Your task to perform on an android device: View the shopping cart on amazon.com. Search for "usb-c to usb-a" on amazon.com, select the first entry, add it to the cart, then select checkout. Image 0: 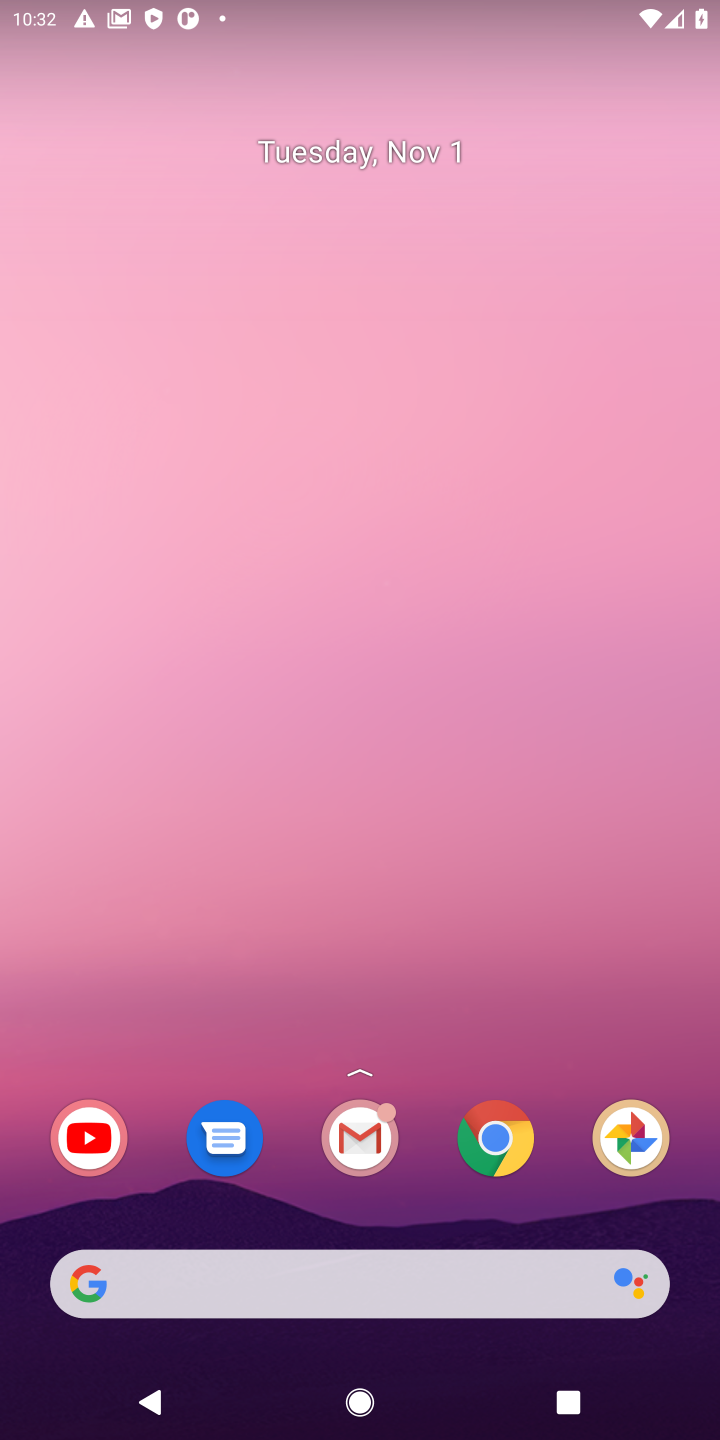
Step 0: click (450, 1154)
Your task to perform on an android device: View the shopping cart on amazon.com. Search for "usb-c to usb-a" on amazon.com, select the first entry, add it to the cart, then select checkout. Image 1: 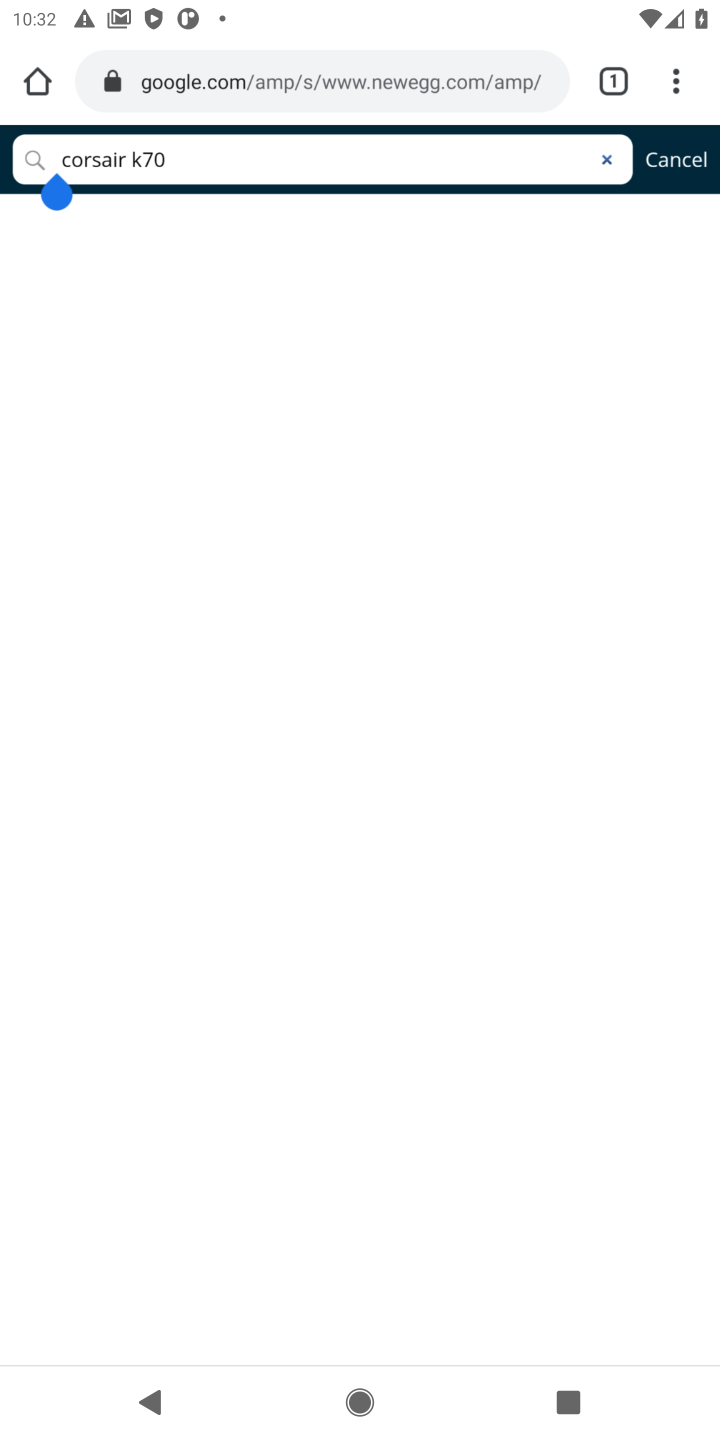
Step 1: click (482, 1147)
Your task to perform on an android device: View the shopping cart on amazon.com. Search for "usb-c to usb-a" on amazon.com, select the first entry, add it to the cart, then select checkout. Image 2: 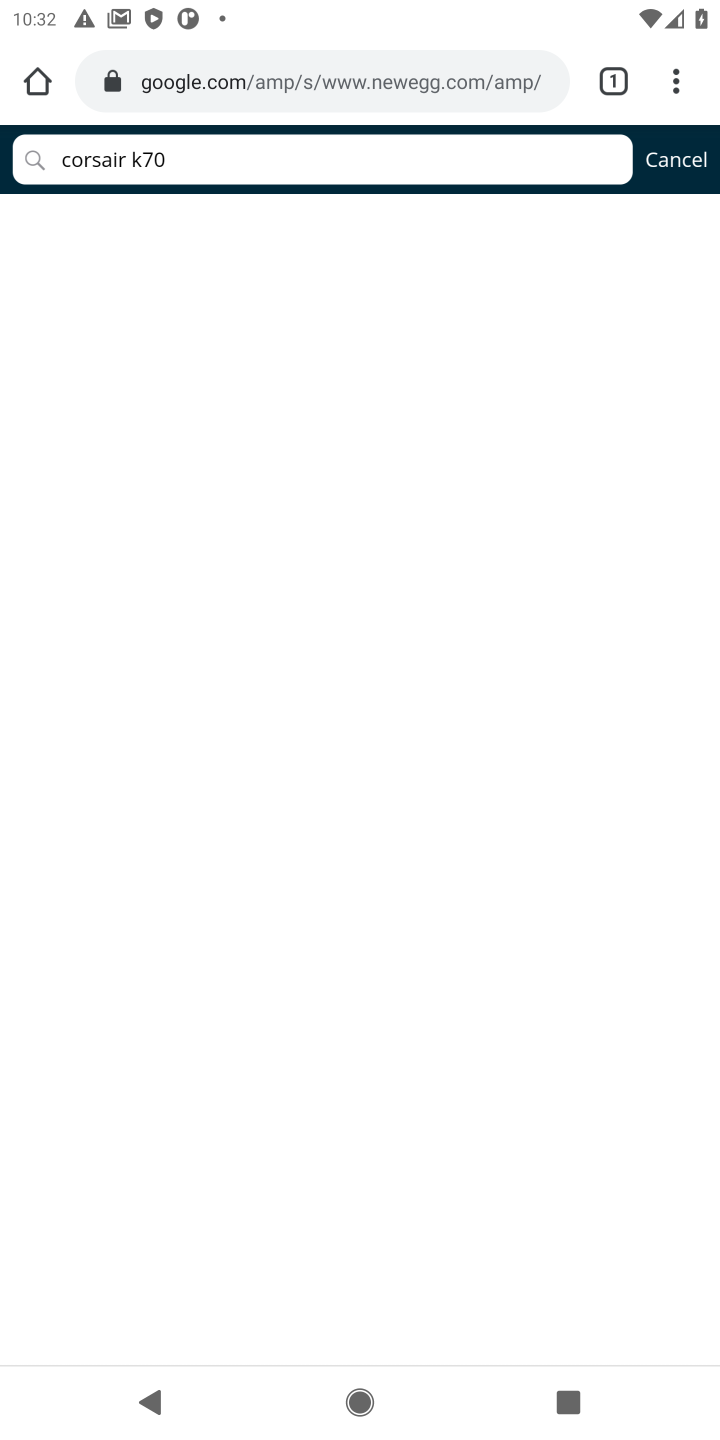
Step 2: click (261, 54)
Your task to perform on an android device: View the shopping cart on amazon.com. Search for "usb-c to usb-a" on amazon.com, select the first entry, add it to the cart, then select checkout. Image 3: 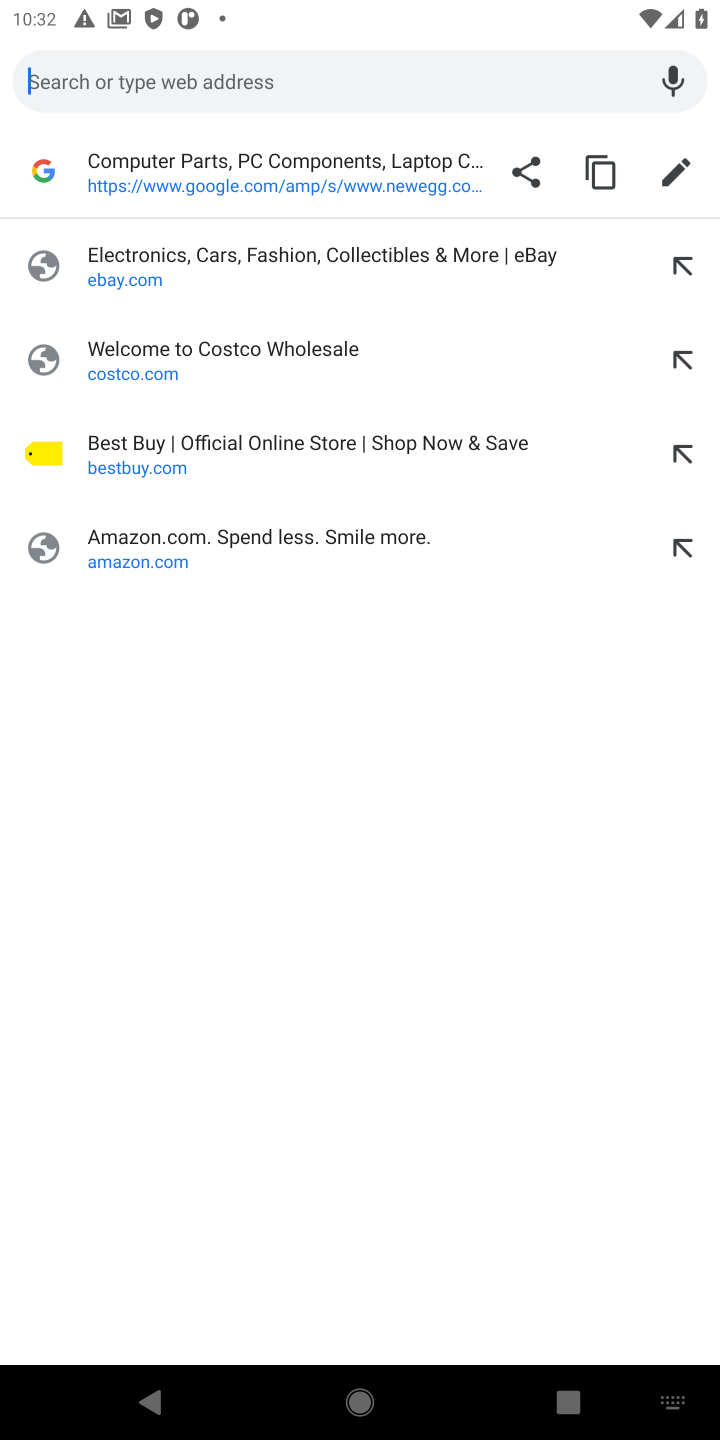
Step 3: type "amazon.com"
Your task to perform on an android device: View the shopping cart on amazon.com. Search for "usb-c to usb-a" on amazon.com, select the first entry, add it to the cart, then select checkout. Image 4: 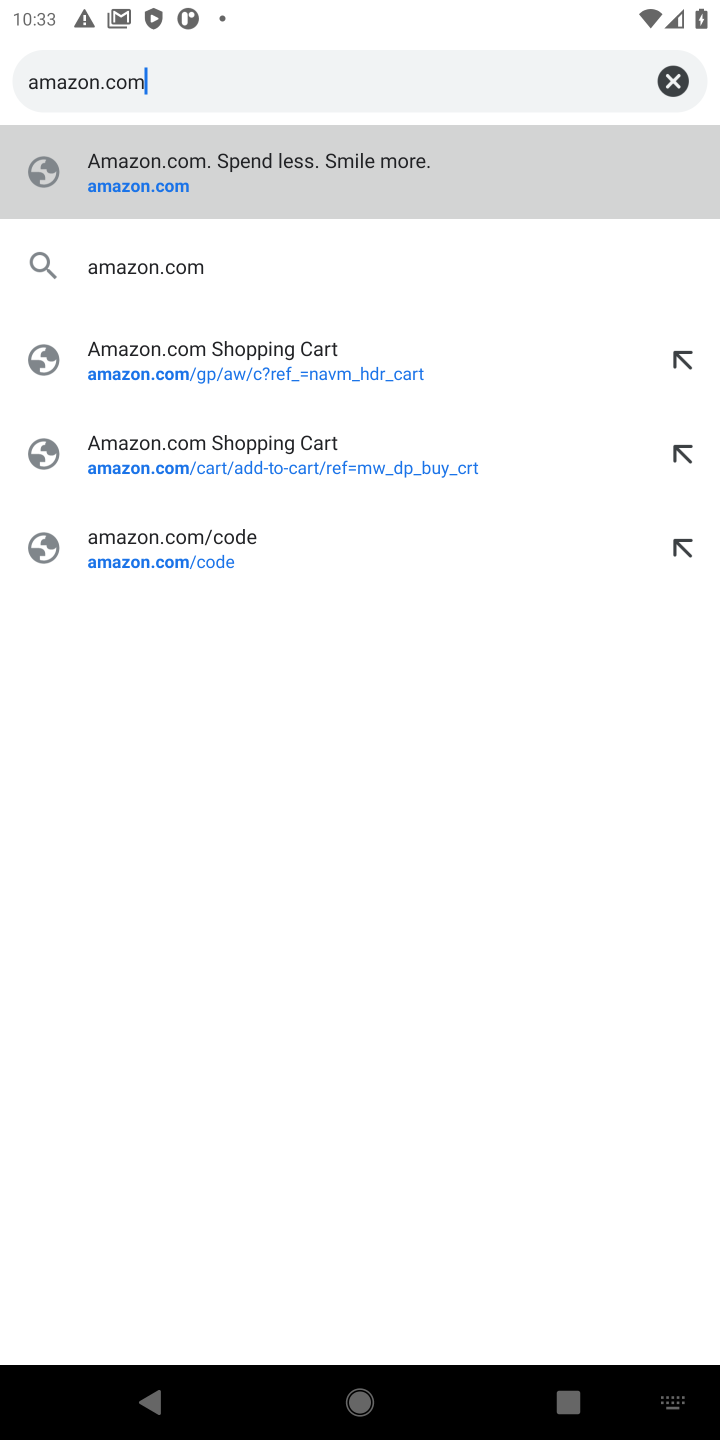
Step 4: click (139, 187)
Your task to perform on an android device: View the shopping cart on amazon.com. Search for "usb-c to usb-a" on amazon.com, select the first entry, add it to the cart, then select checkout. Image 5: 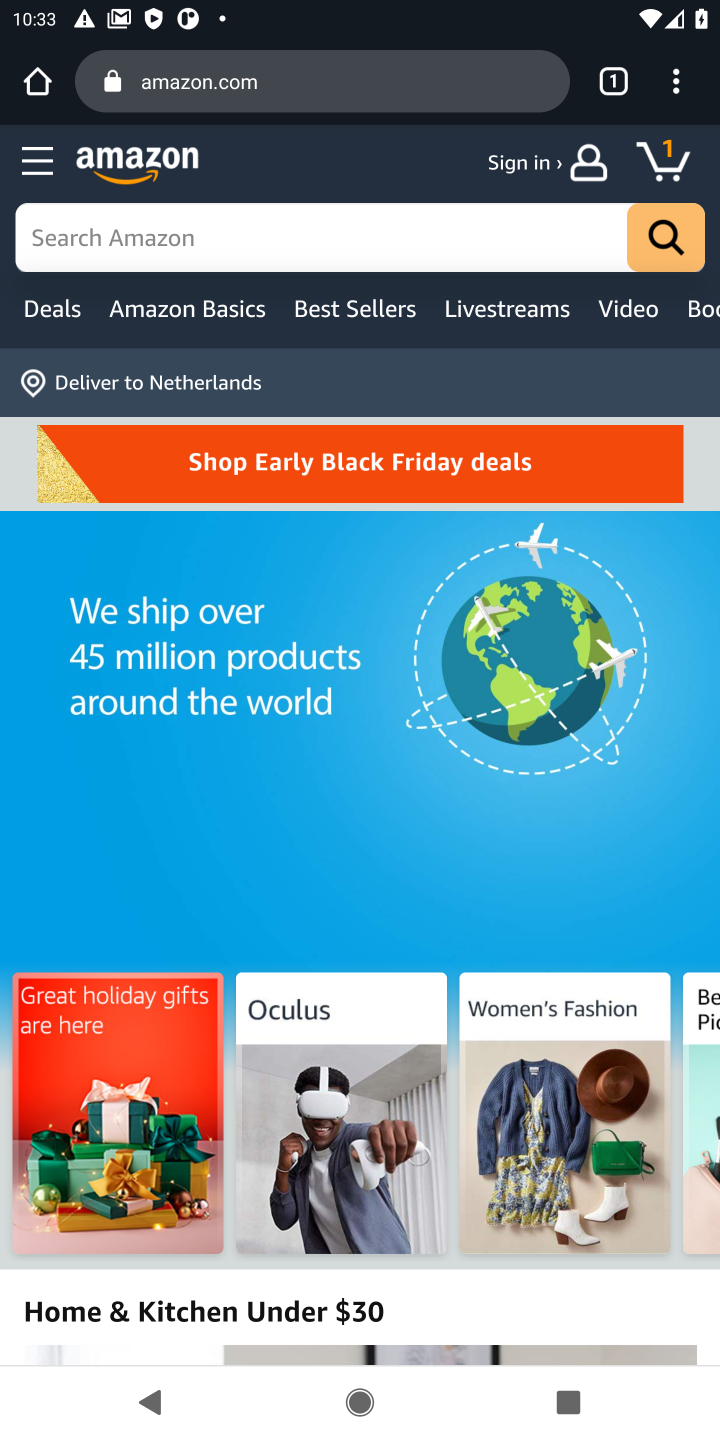
Step 5: click (654, 158)
Your task to perform on an android device: View the shopping cart on amazon.com. Search for "usb-c to usb-a" on amazon.com, select the first entry, add it to the cart, then select checkout. Image 6: 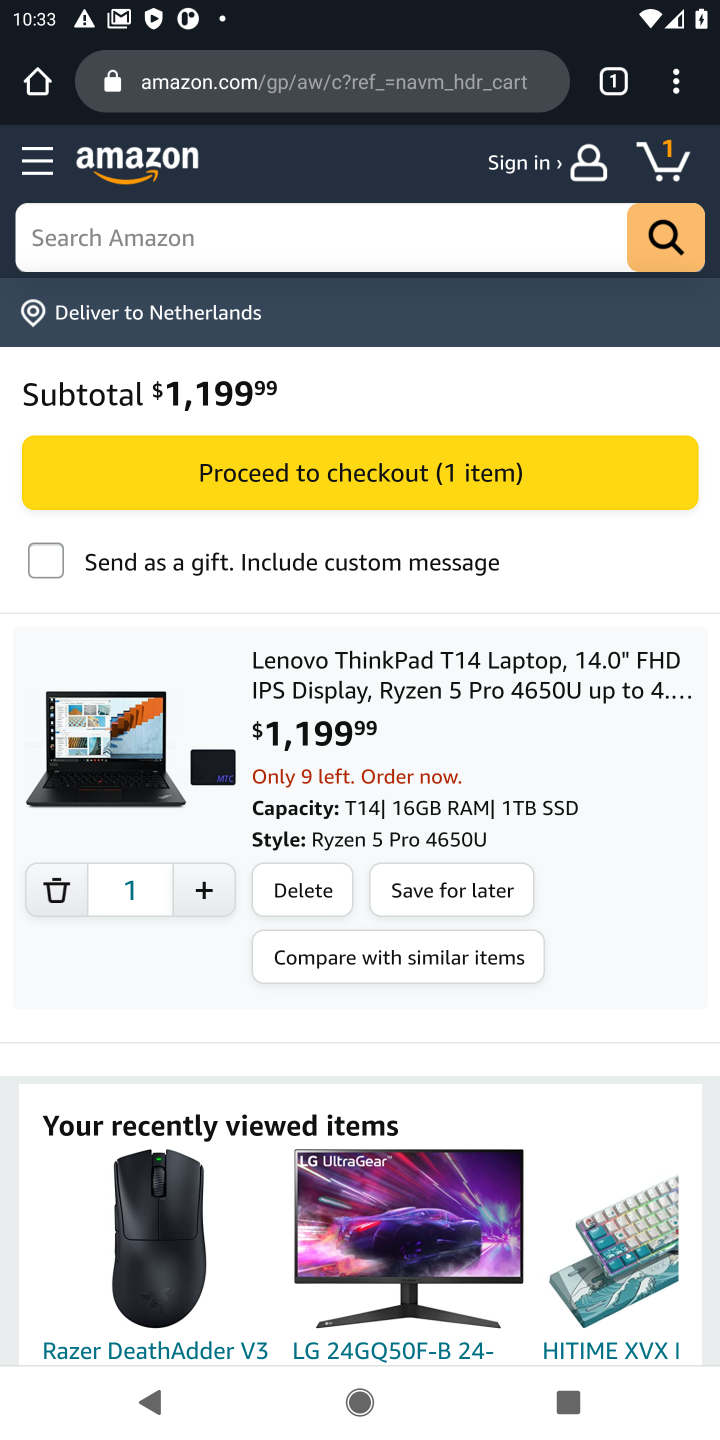
Step 6: click (269, 237)
Your task to perform on an android device: View the shopping cart on amazon.com. Search for "usb-c to usb-a" on amazon.com, select the first entry, add it to the cart, then select checkout. Image 7: 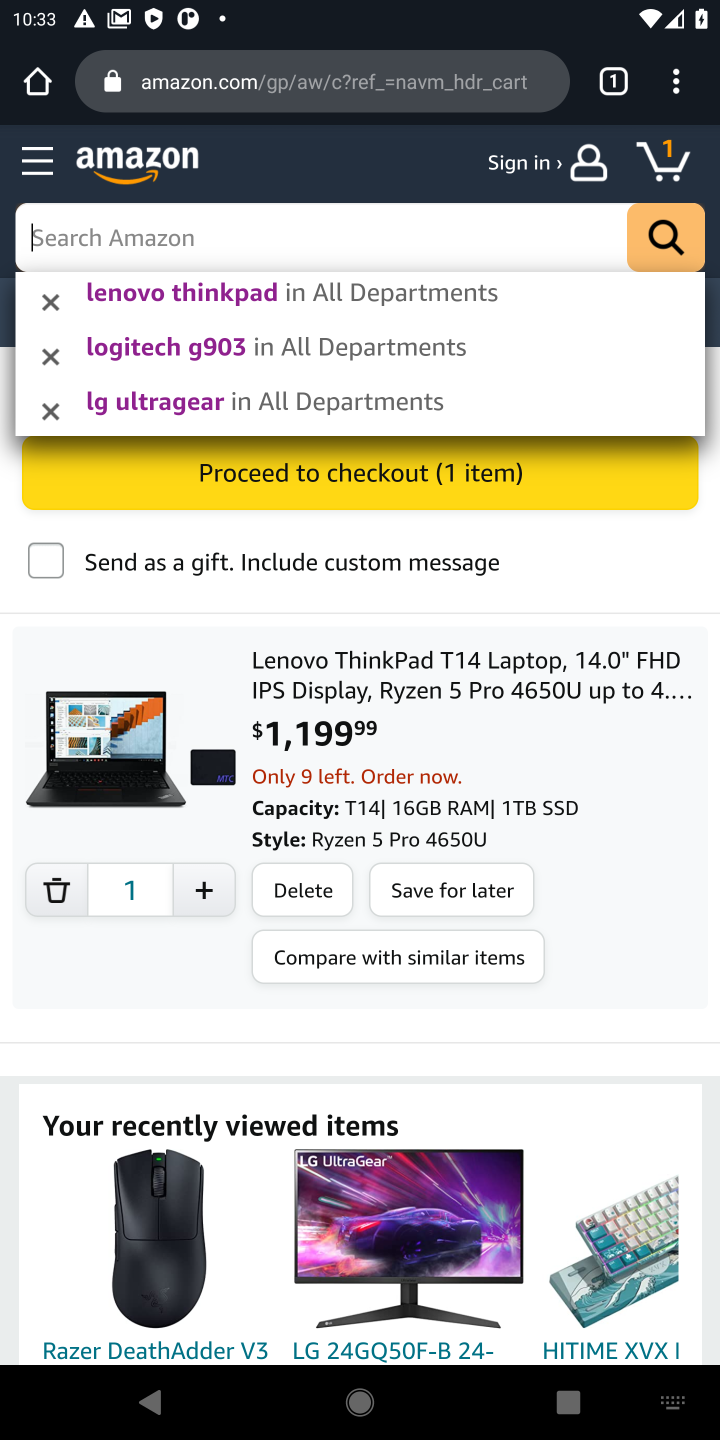
Step 7: type "usb-c to usb-a"
Your task to perform on an android device: View the shopping cart on amazon.com. Search for "usb-c to usb-a" on amazon.com, select the first entry, add it to the cart, then select checkout. Image 8: 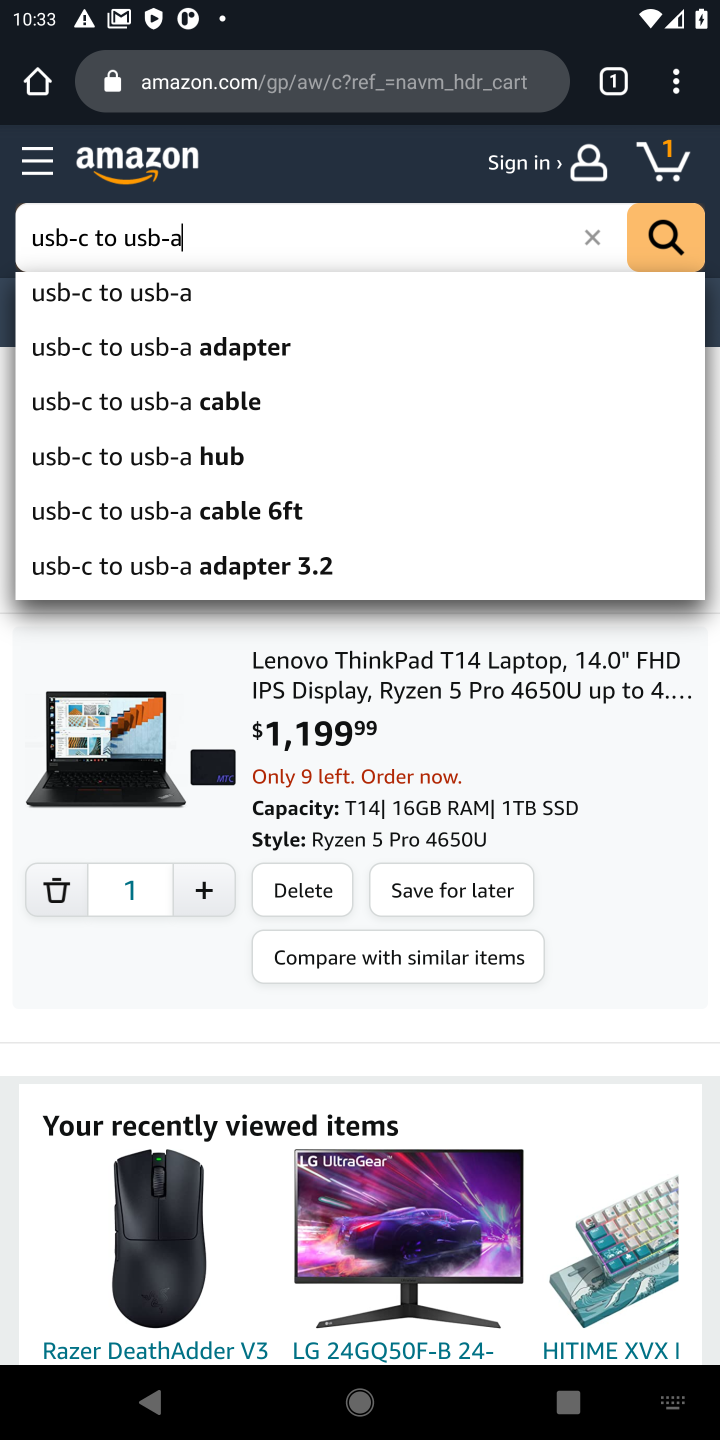
Step 8: click (124, 310)
Your task to perform on an android device: View the shopping cart on amazon.com. Search for "usb-c to usb-a" on amazon.com, select the first entry, add it to the cart, then select checkout. Image 9: 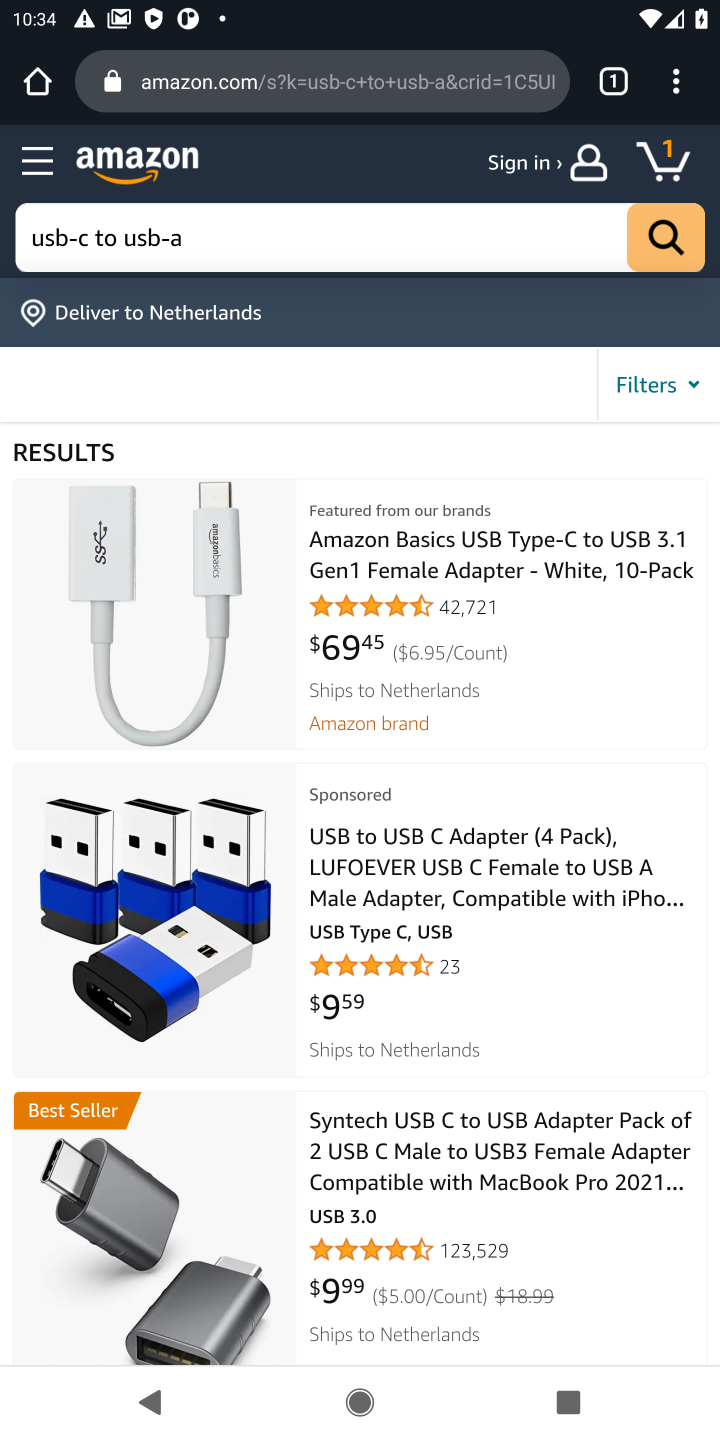
Step 9: click (389, 662)
Your task to perform on an android device: View the shopping cart on amazon.com. Search for "usb-c to usb-a" on amazon.com, select the first entry, add it to the cart, then select checkout. Image 10: 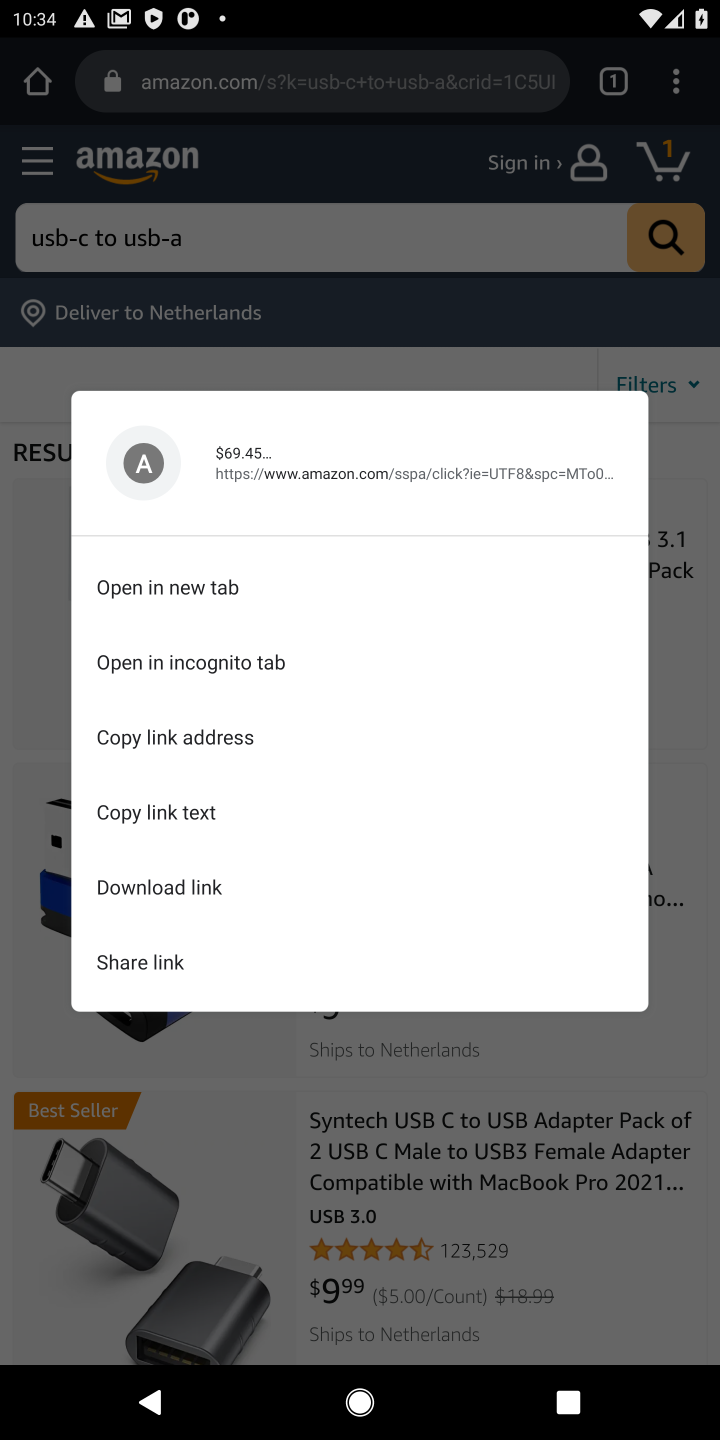
Step 10: click (681, 660)
Your task to perform on an android device: View the shopping cart on amazon.com. Search for "usb-c to usb-a" on amazon.com, select the first entry, add it to the cart, then select checkout. Image 11: 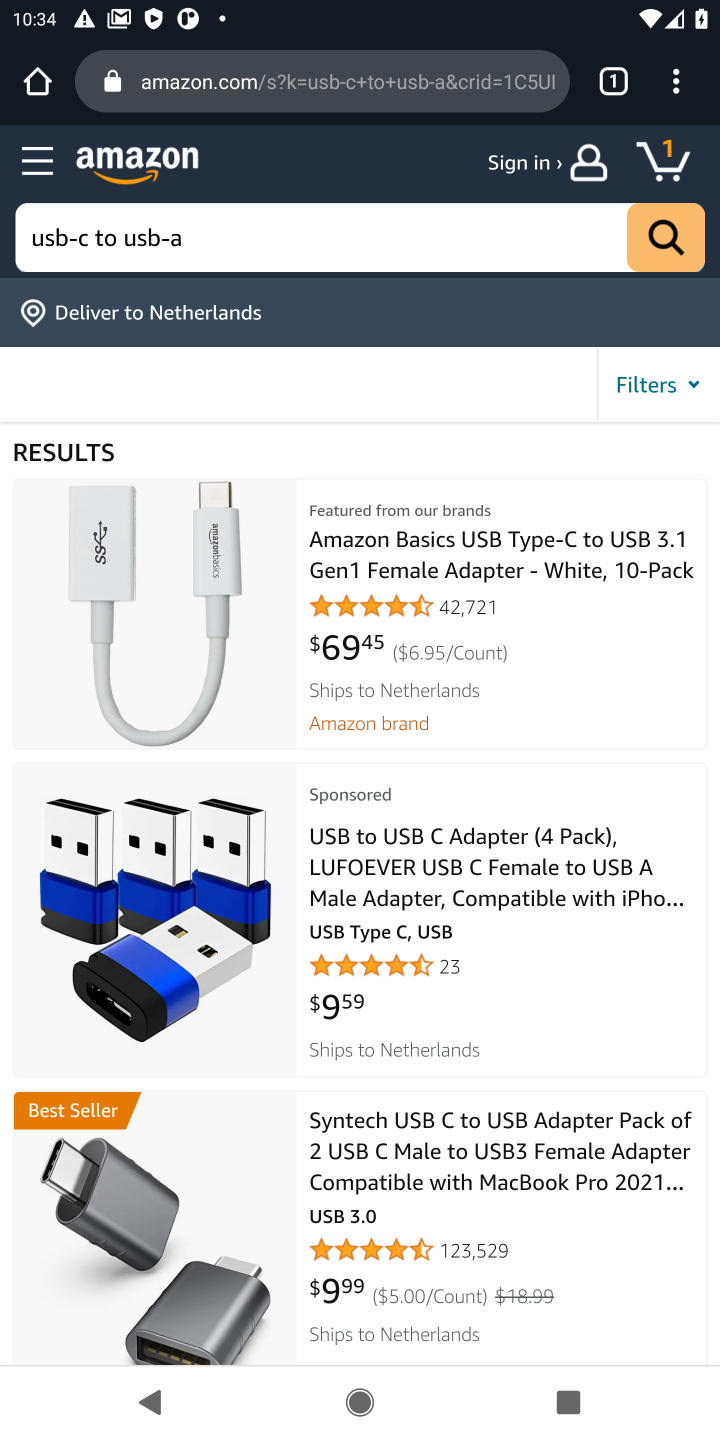
Step 11: click (299, 620)
Your task to perform on an android device: View the shopping cart on amazon.com. Search for "usb-c to usb-a" on amazon.com, select the first entry, add it to the cart, then select checkout. Image 12: 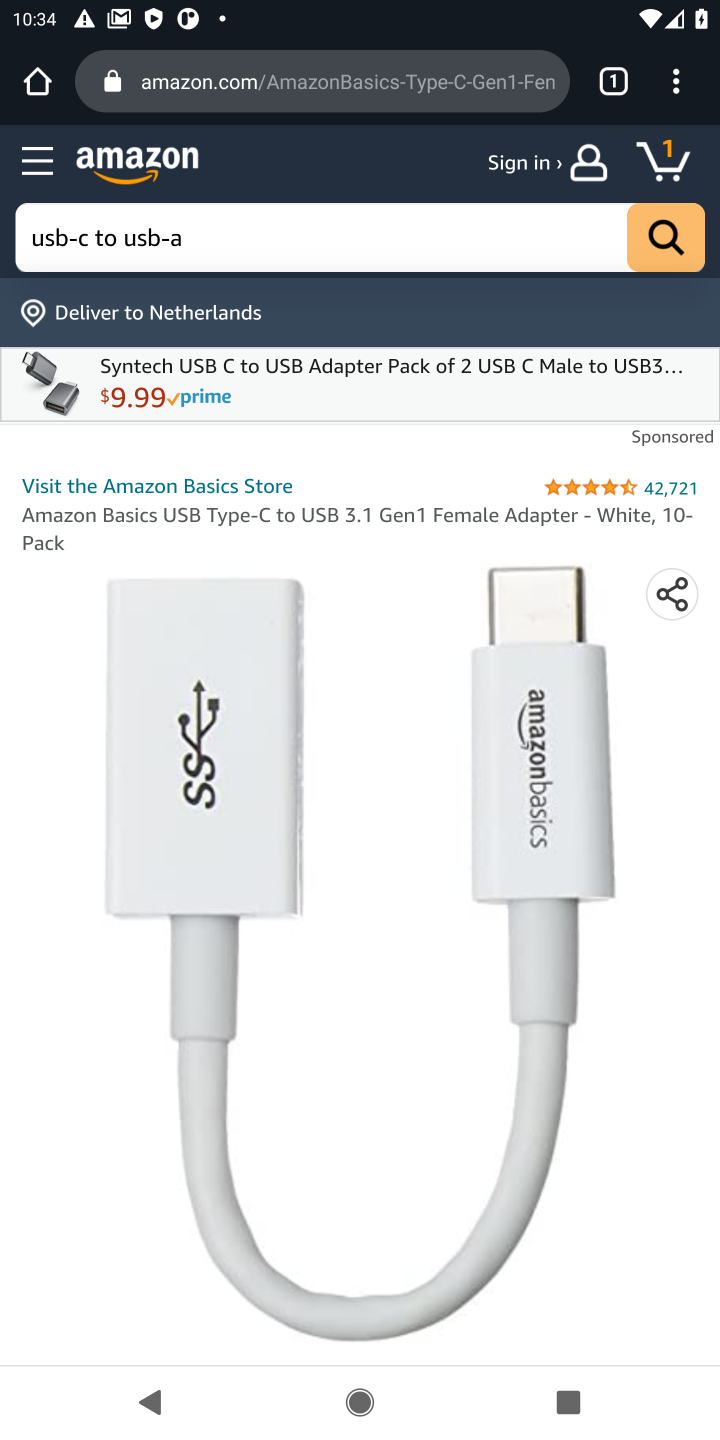
Step 12: drag from (321, 991) to (354, 668)
Your task to perform on an android device: View the shopping cart on amazon.com. Search for "usb-c to usb-a" on amazon.com, select the first entry, add it to the cart, then select checkout. Image 13: 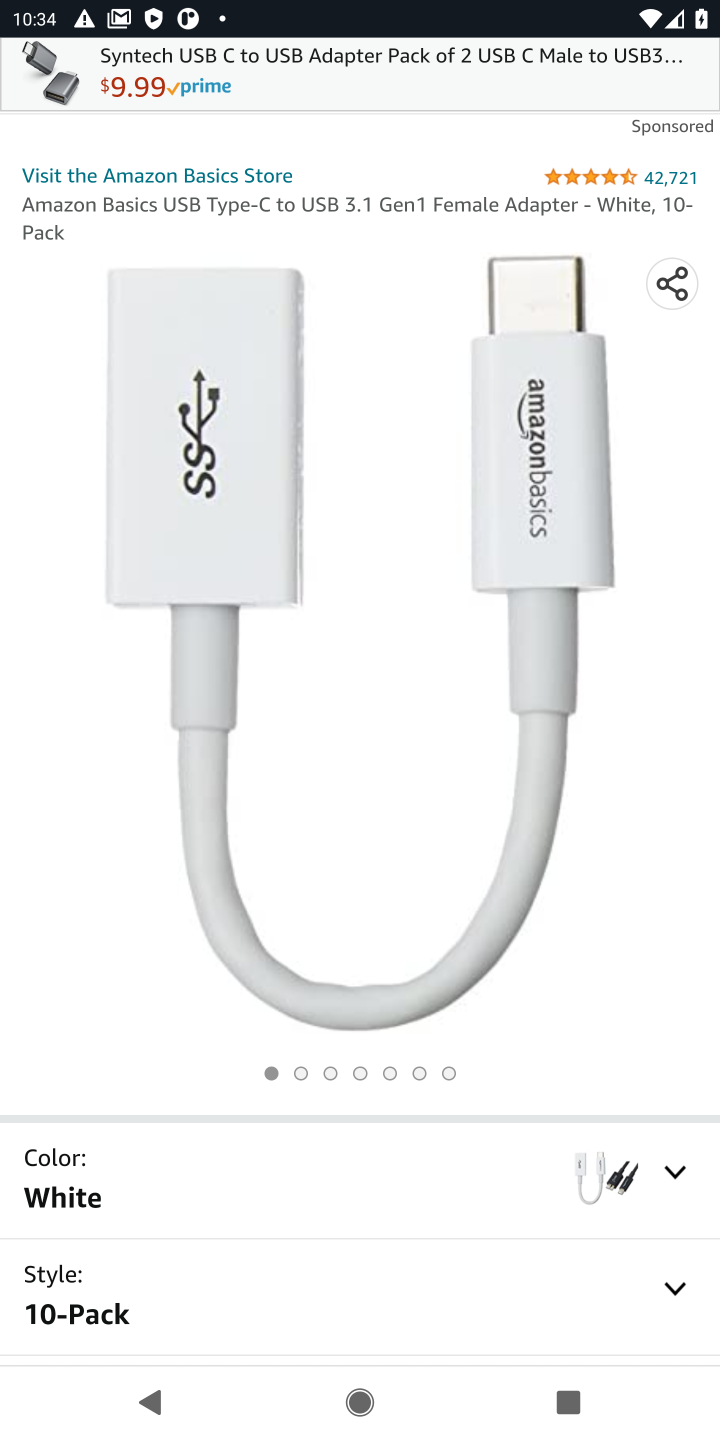
Step 13: drag from (297, 1150) to (301, 534)
Your task to perform on an android device: View the shopping cart on amazon.com. Search for "usb-c to usb-a" on amazon.com, select the first entry, add it to the cart, then select checkout. Image 14: 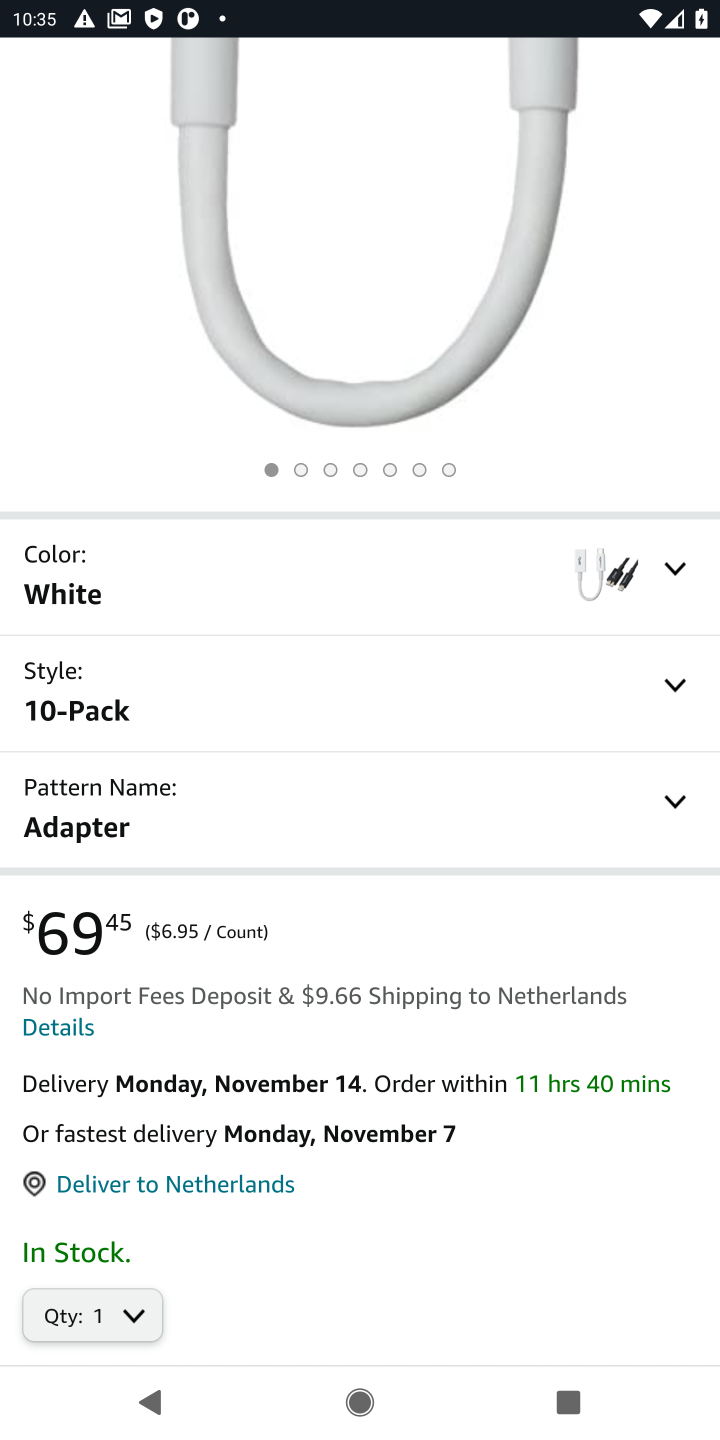
Step 14: drag from (326, 1160) to (297, 546)
Your task to perform on an android device: View the shopping cart on amazon.com. Search for "usb-c to usb-a" on amazon.com, select the first entry, add it to the cart, then select checkout. Image 15: 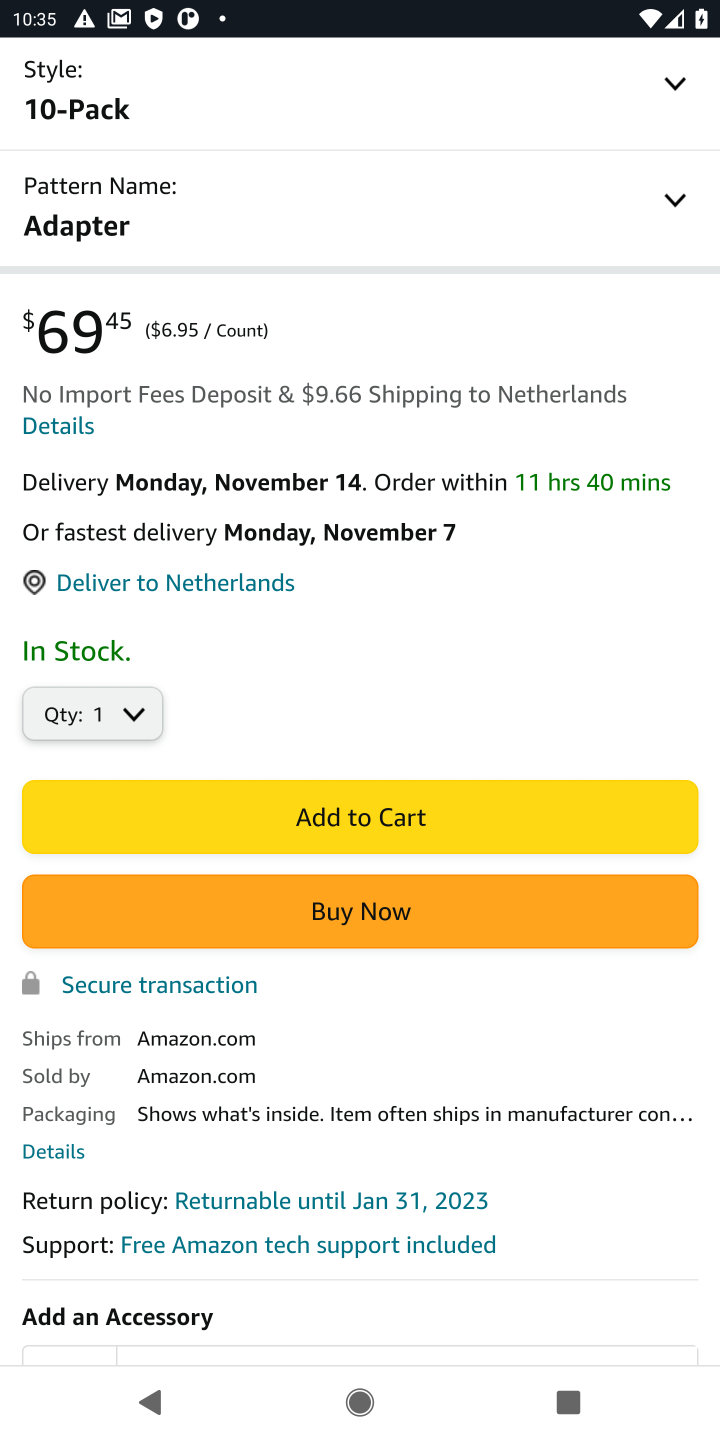
Step 15: click (293, 813)
Your task to perform on an android device: View the shopping cart on amazon.com. Search for "usb-c to usb-a" on amazon.com, select the first entry, add it to the cart, then select checkout. Image 16: 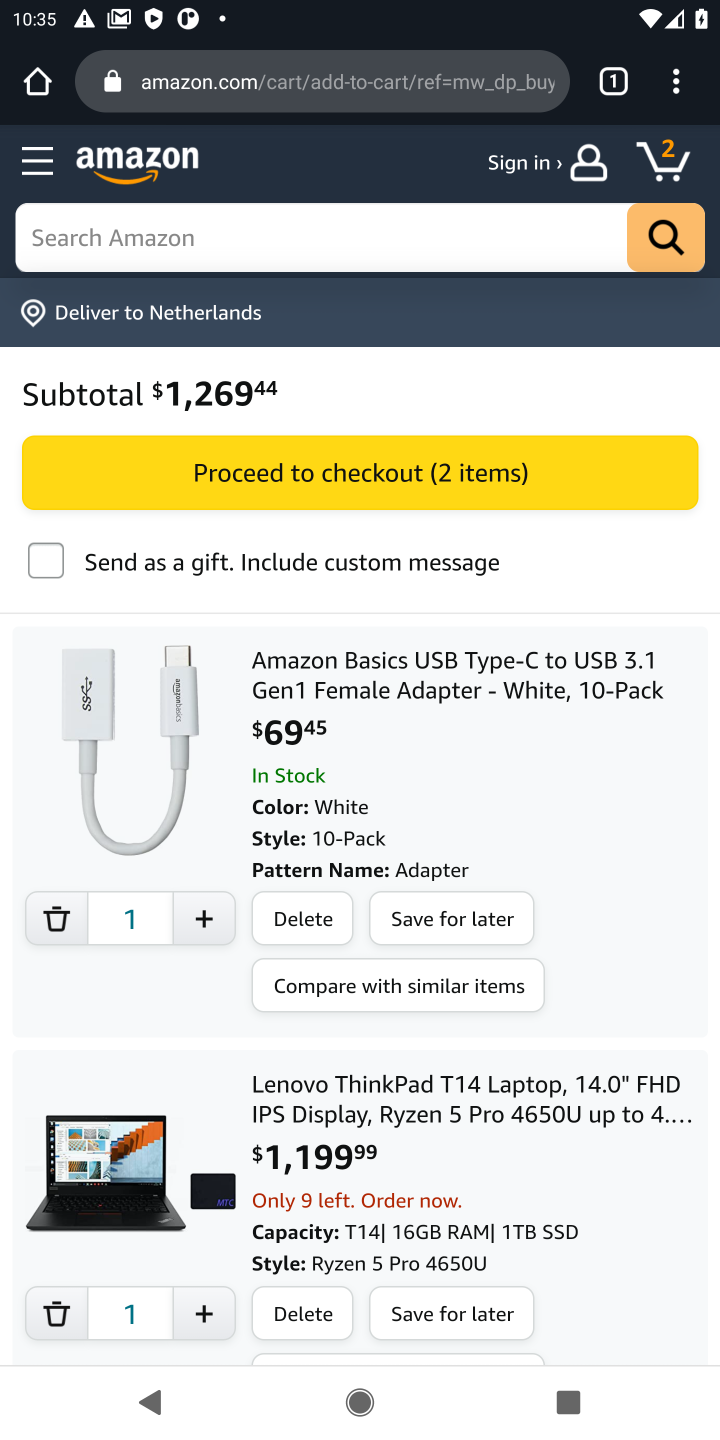
Step 16: click (352, 477)
Your task to perform on an android device: View the shopping cart on amazon.com. Search for "usb-c to usb-a" on amazon.com, select the first entry, add it to the cart, then select checkout. Image 17: 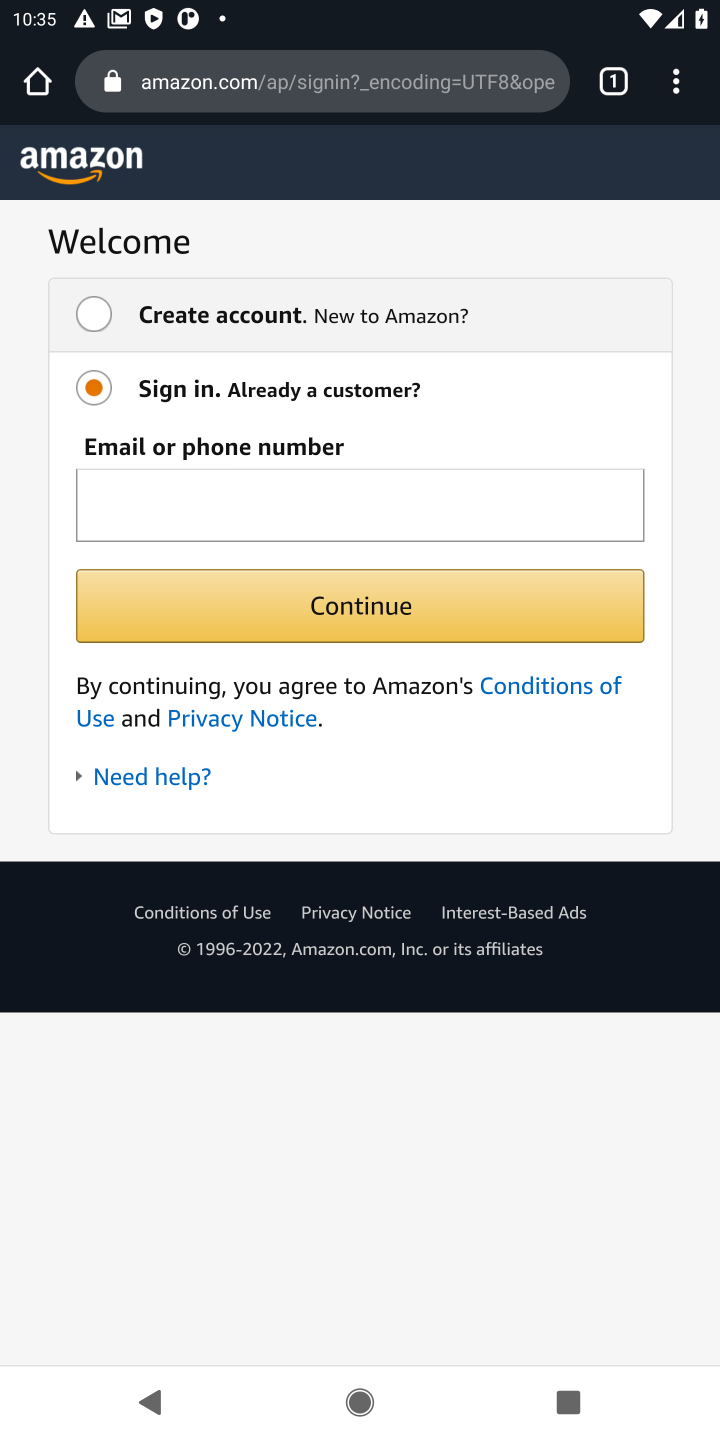
Step 17: task complete